Your task to perform on an android device: turn off location history Image 0: 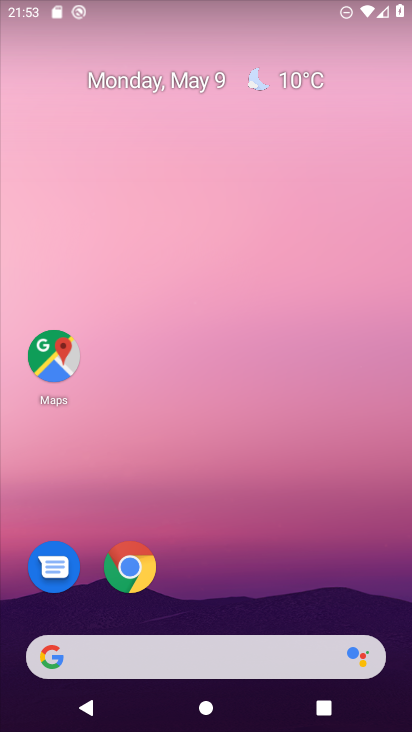
Step 0: drag from (290, 569) to (342, 28)
Your task to perform on an android device: turn off location history Image 1: 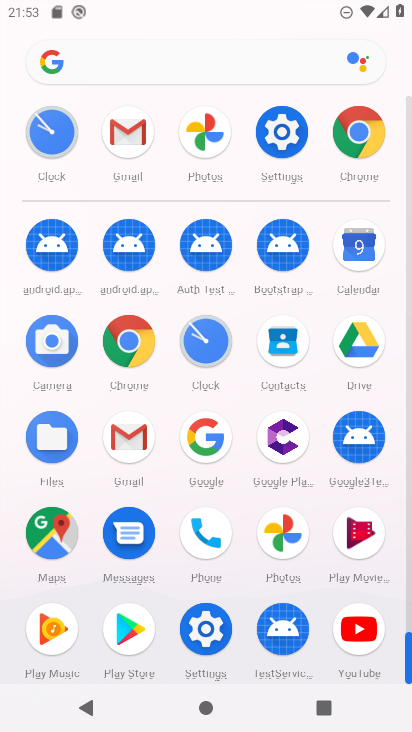
Step 1: click (290, 136)
Your task to perform on an android device: turn off location history Image 2: 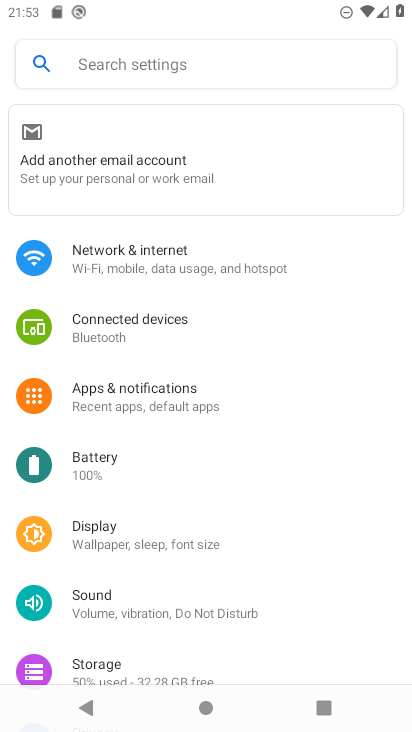
Step 2: drag from (186, 573) to (229, 165)
Your task to perform on an android device: turn off location history Image 3: 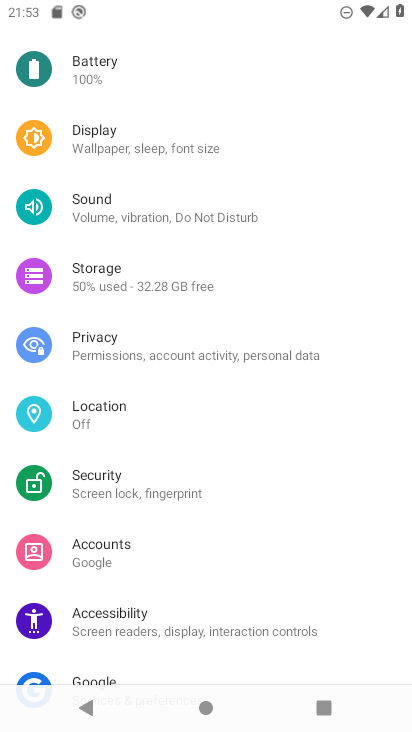
Step 3: click (119, 413)
Your task to perform on an android device: turn off location history Image 4: 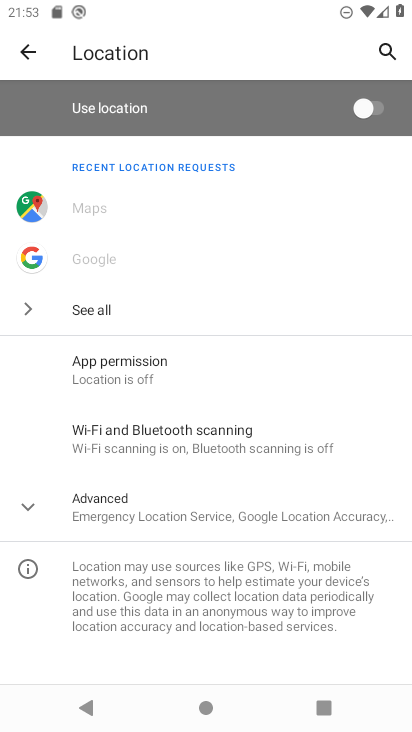
Step 4: click (28, 510)
Your task to perform on an android device: turn off location history Image 5: 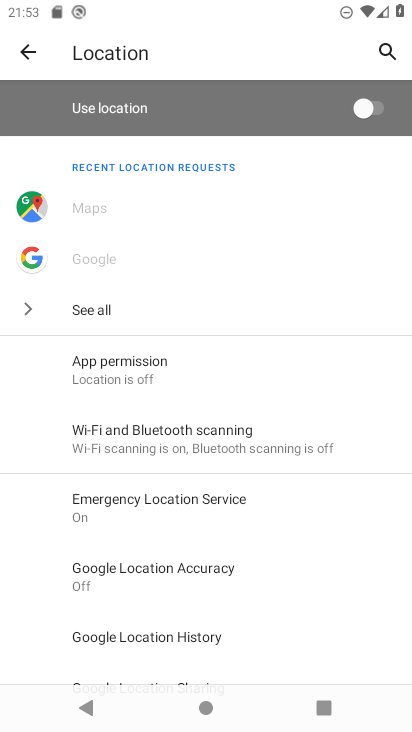
Step 5: drag from (227, 590) to (239, 491)
Your task to perform on an android device: turn off location history Image 6: 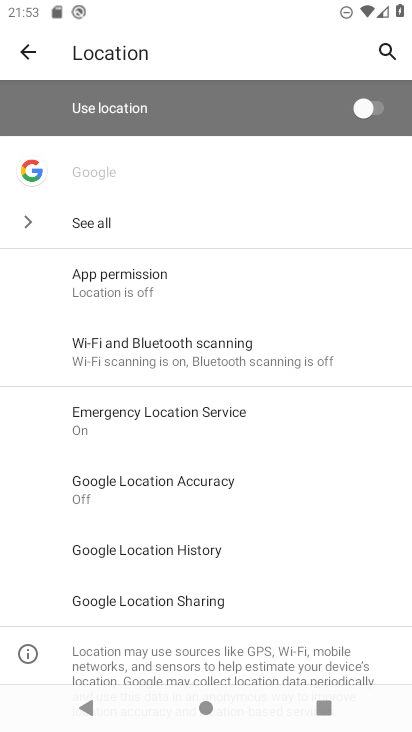
Step 6: click (216, 552)
Your task to perform on an android device: turn off location history Image 7: 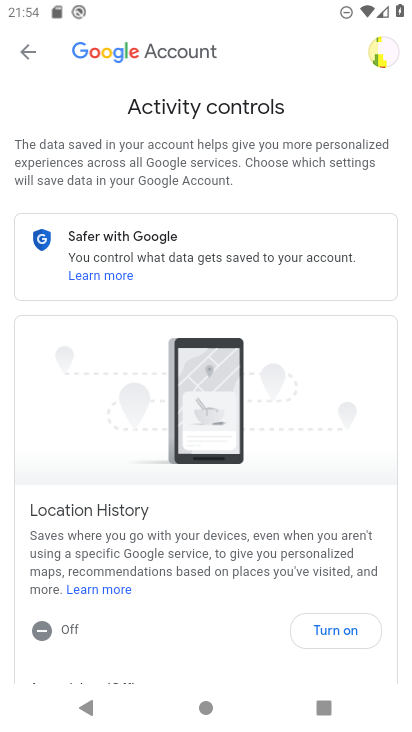
Step 7: task complete